Your task to perform on an android device: open app "File Manager" Image 0: 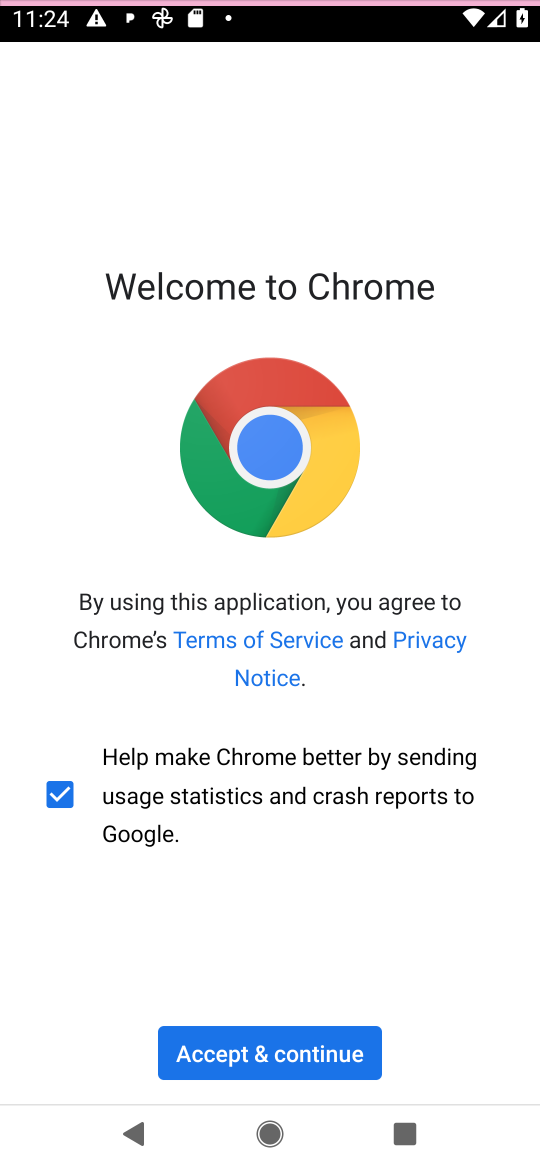
Step 0: press home button
Your task to perform on an android device: open app "File Manager" Image 1: 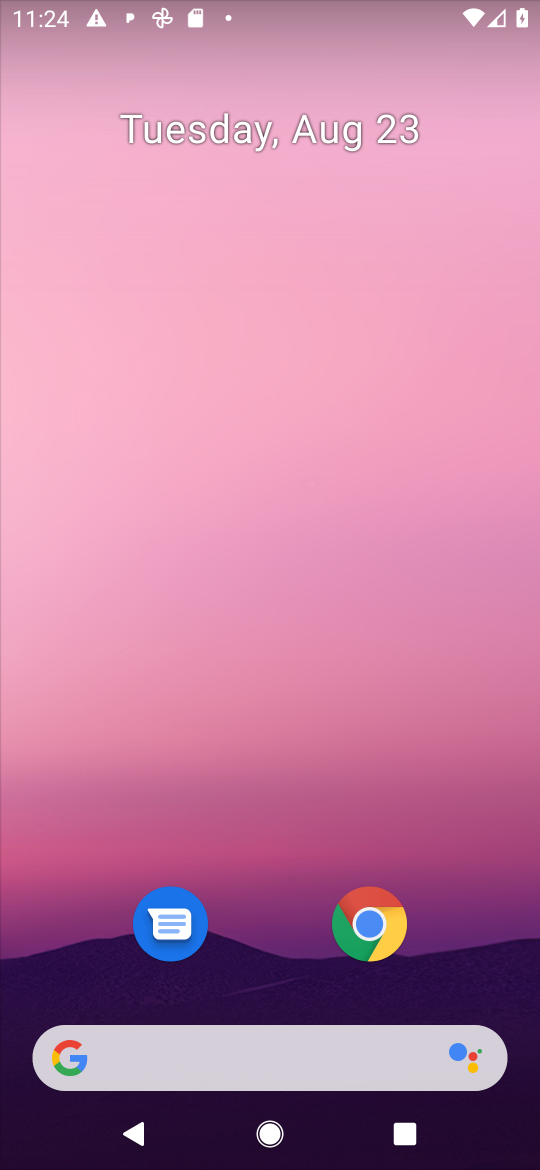
Step 1: drag from (467, 925) to (479, 65)
Your task to perform on an android device: open app "File Manager" Image 2: 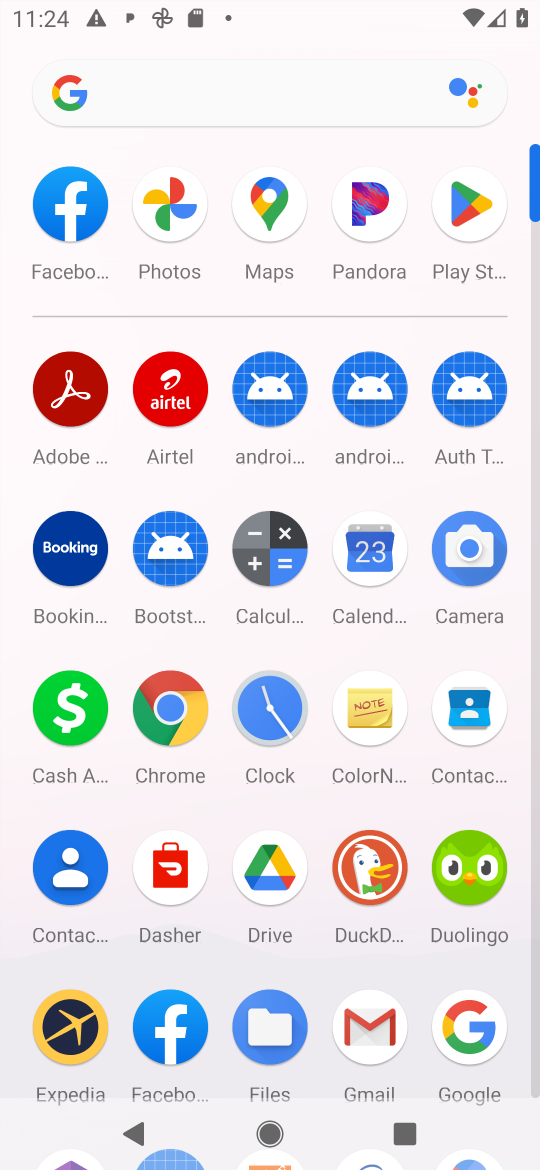
Step 2: click (469, 212)
Your task to perform on an android device: open app "File Manager" Image 3: 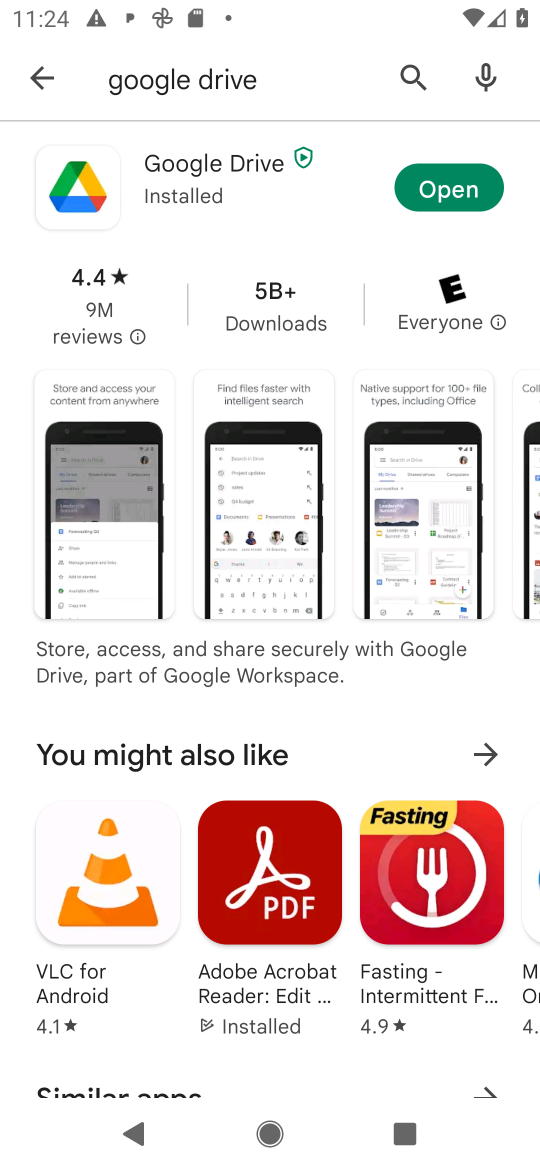
Step 3: press back button
Your task to perform on an android device: open app "File Manager" Image 4: 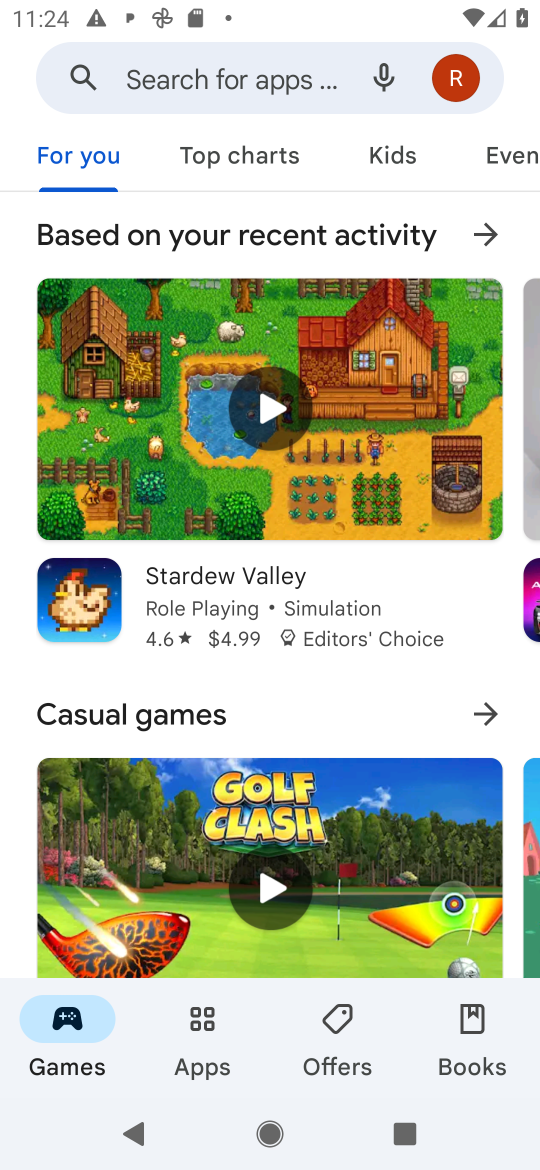
Step 4: click (211, 70)
Your task to perform on an android device: open app "File Manager" Image 5: 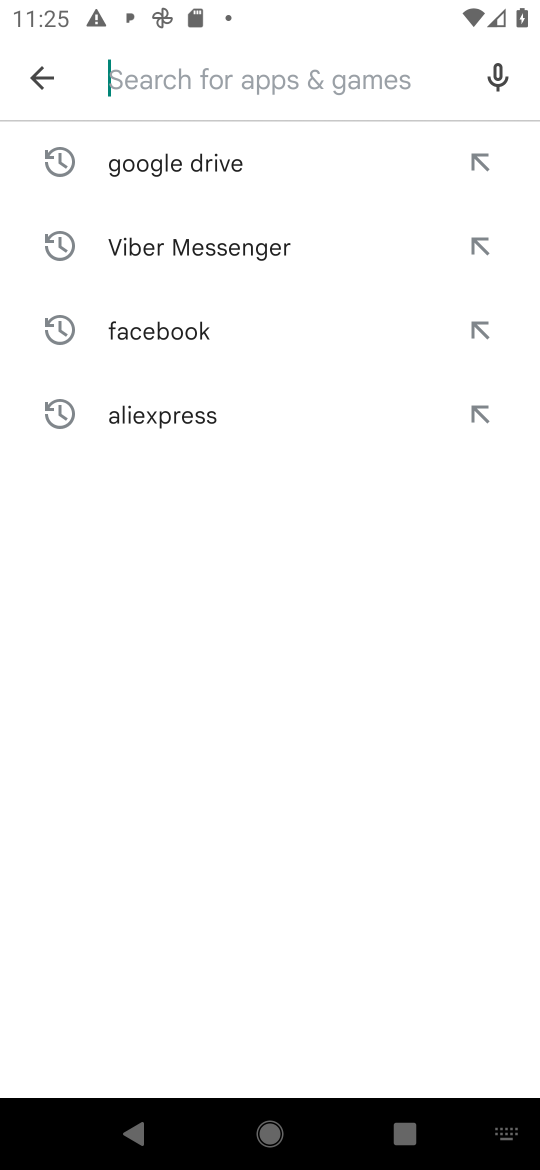
Step 5: type "file manager"
Your task to perform on an android device: open app "File Manager" Image 6: 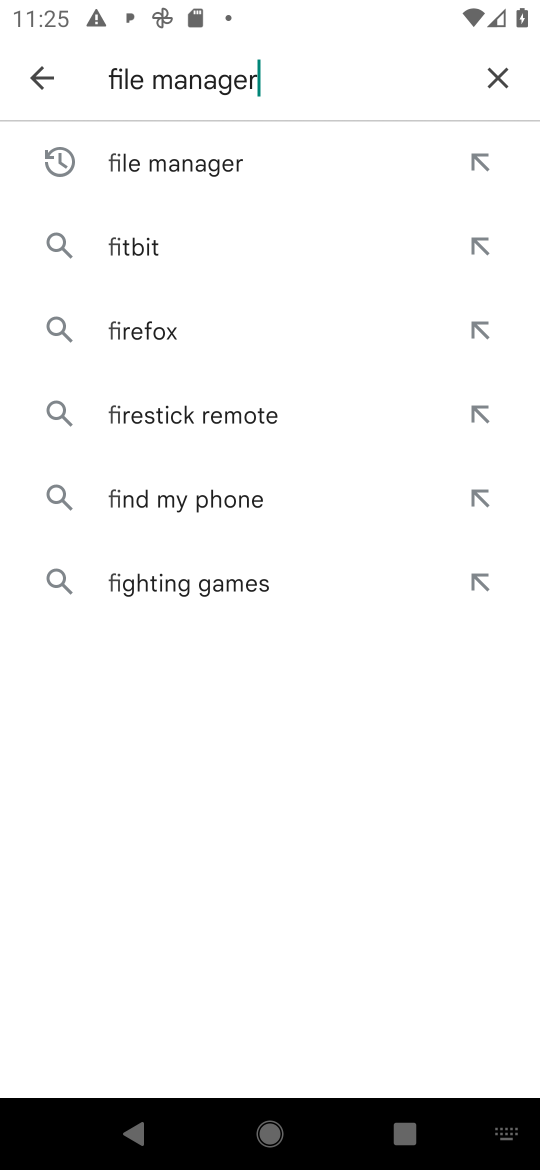
Step 6: press enter
Your task to perform on an android device: open app "File Manager" Image 7: 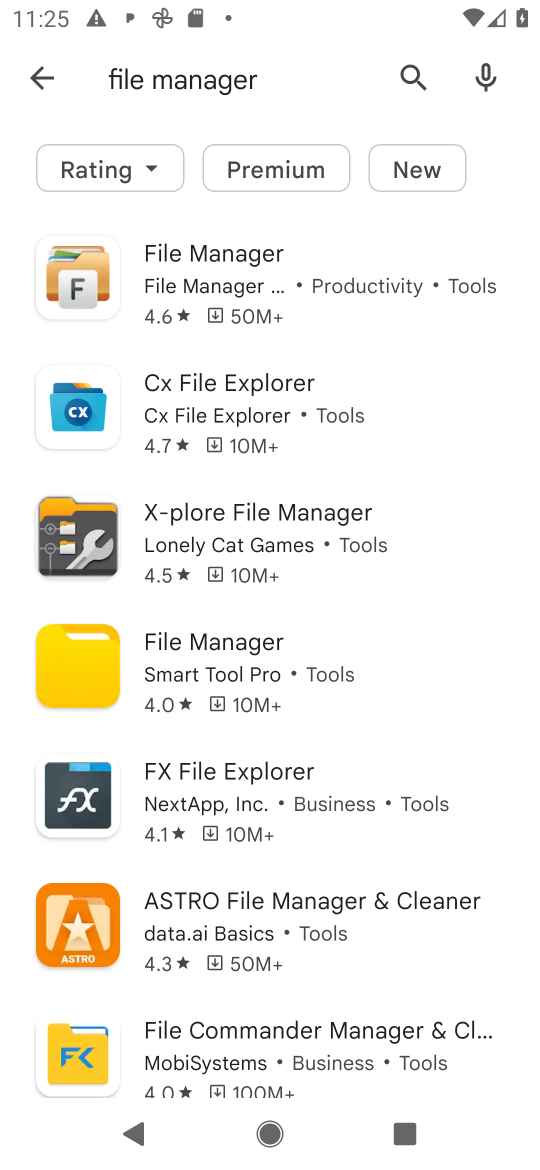
Step 7: task complete